Your task to perform on an android device: What's the weather going to be this weekend? Image 0: 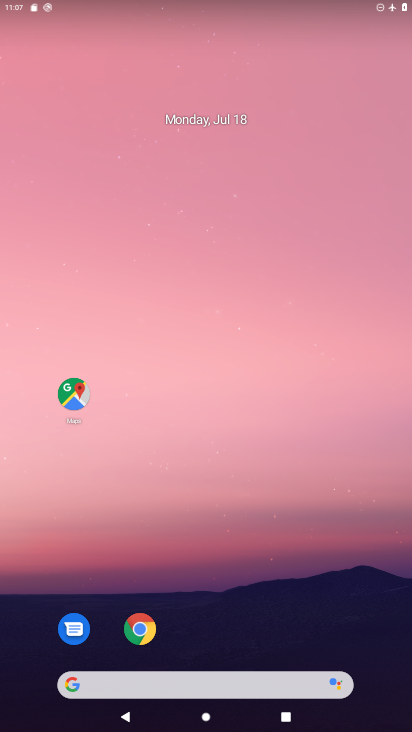
Step 0: drag from (313, 586) to (282, 86)
Your task to perform on an android device: What's the weather going to be this weekend? Image 1: 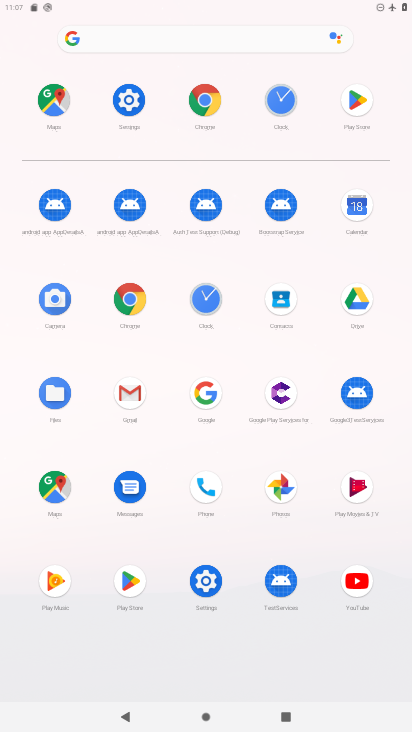
Step 1: click (209, 102)
Your task to perform on an android device: What's the weather going to be this weekend? Image 2: 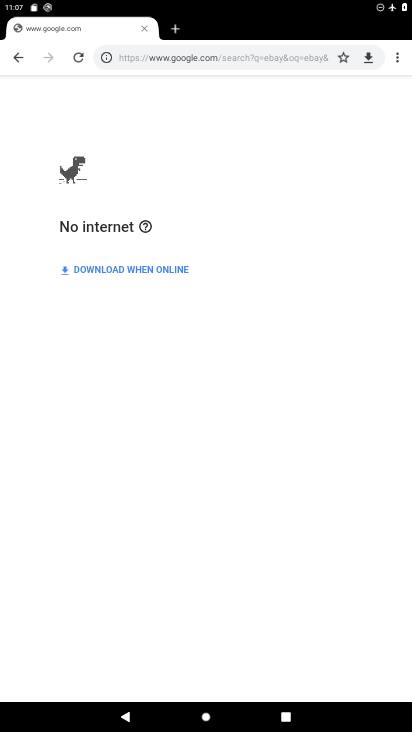
Step 2: click (200, 55)
Your task to perform on an android device: What's the weather going to be this weekend? Image 3: 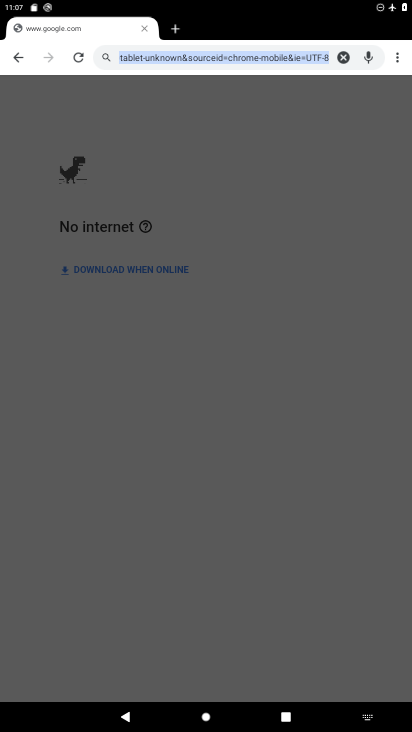
Step 3: type "weather"
Your task to perform on an android device: What's the weather going to be this weekend? Image 4: 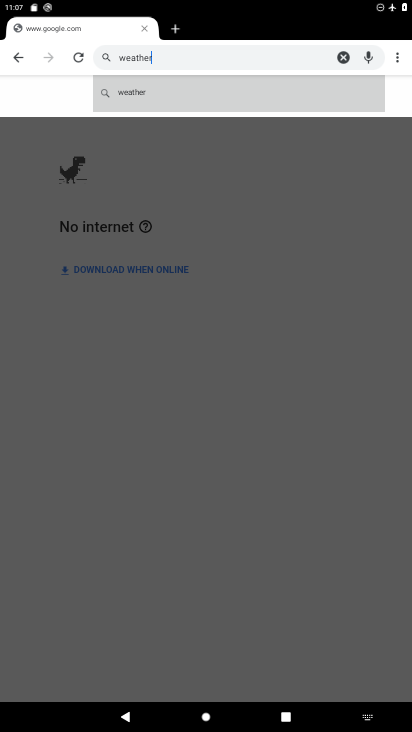
Step 4: click (206, 89)
Your task to perform on an android device: What's the weather going to be this weekend? Image 5: 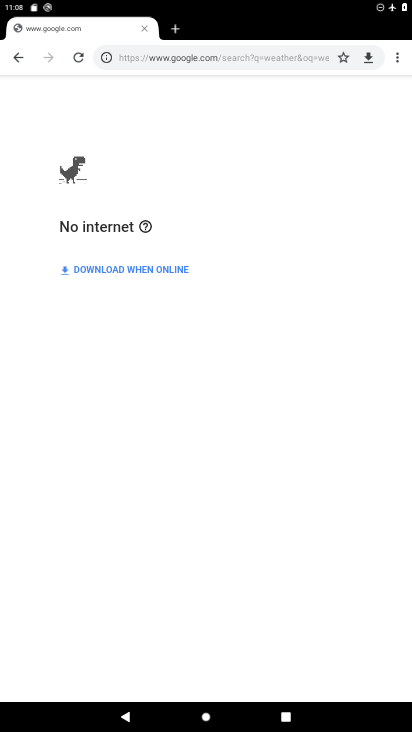
Step 5: task complete